Your task to perform on an android device: toggle improve location accuracy Image 0: 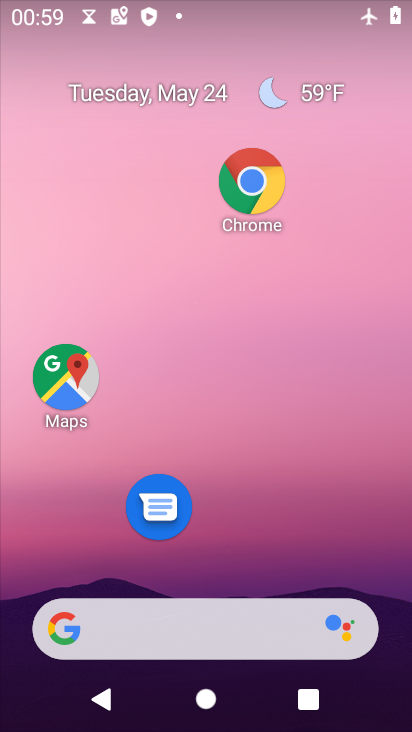
Step 0: drag from (282, 543) to (398, 113)
Your task to perform on an android device: toggle improve location accuracy Image 1: 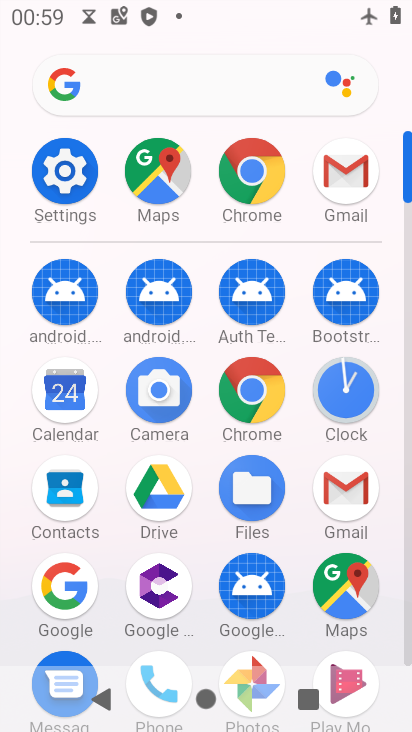
Step 1: click (68, 156)
Your task to perform on an android device: toggle improve location accuracy Image 2: 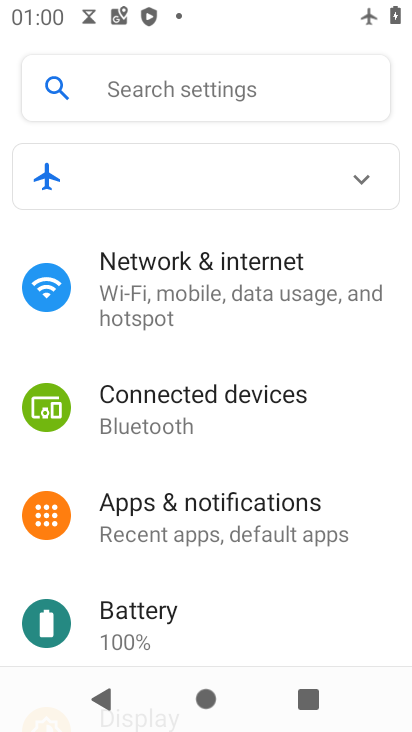
Step 2: drag from (166, 586) to (325, 143)
Your task to perform on an android device: toggle improve location accuracy Image 3: 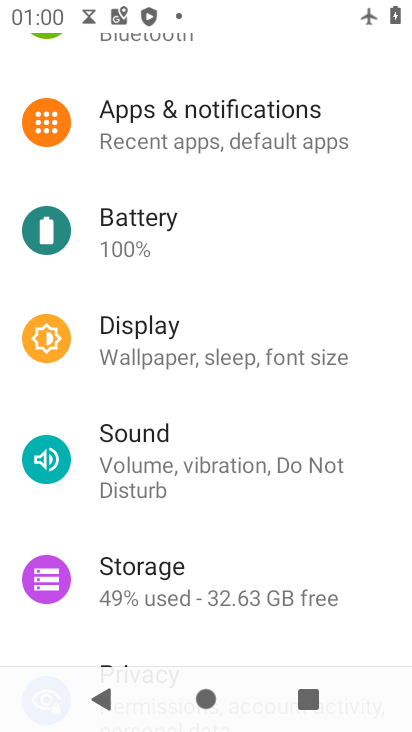
Step 3: drag from (226, 491) to (358, 98)
Your task to perform on an android device: toggle improve location accuracy Image 4: 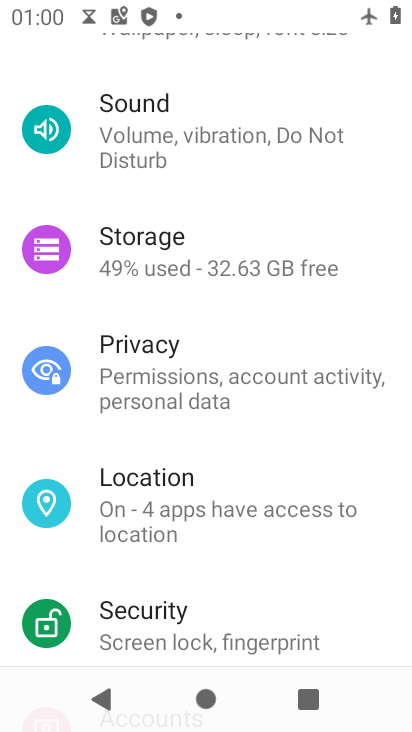
Step 4: click (177, 518)
Your task to perform on an android device: toggle improve location accuracy Image 5: 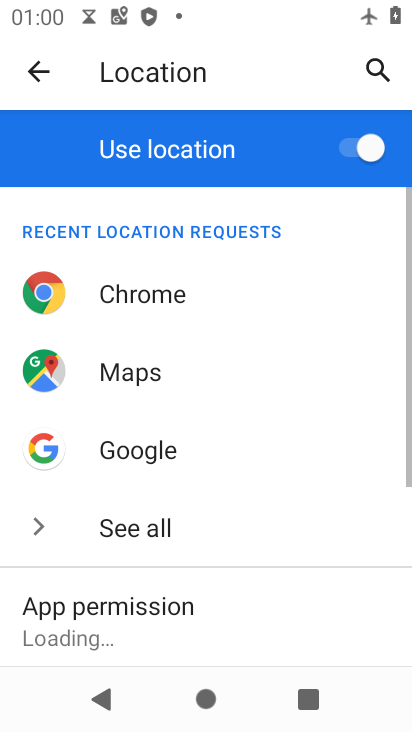
Step 5: drag from (295, 530) to (349, 151)
Your task to perform on an android device: toggle improve location accuracy Image 6: 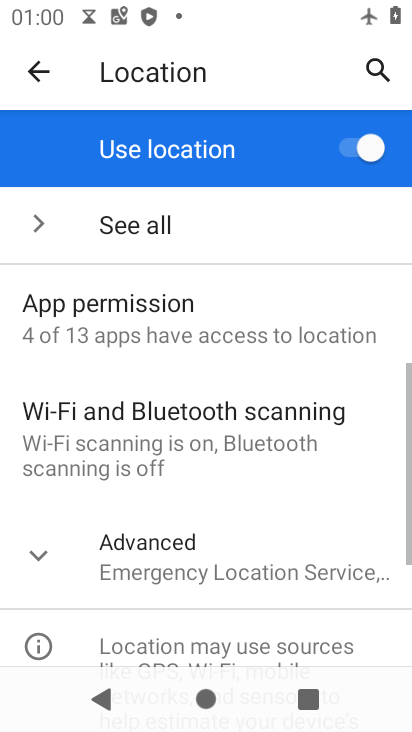
Step 6: drag from (249, 498) to (299, 258)
Your task to perform on an android device: toggle improve location accuracy Image 7: 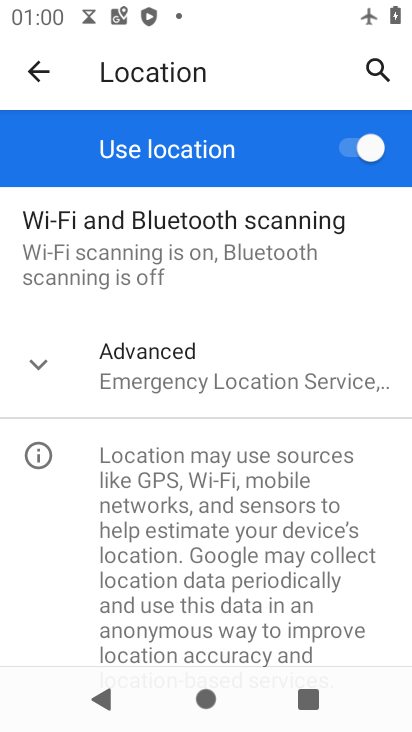
Step 7: click (221, 383)
Your task to perform on an android device: toggle improve location accuracy Image 8: 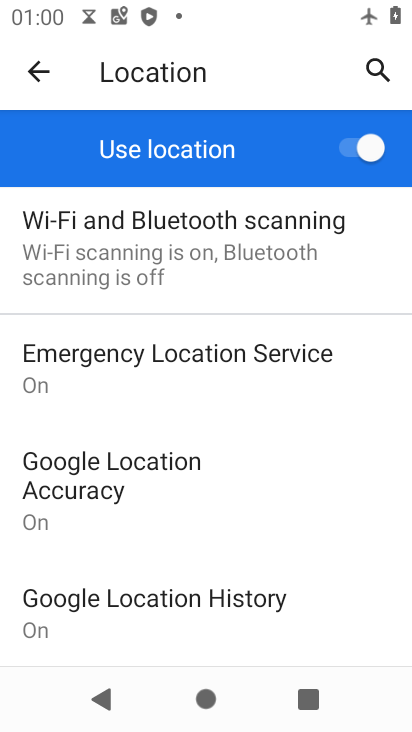
Step 8: click (125, 508)
Your task to perform on an android device: toggle improve location accuracy Image 9: 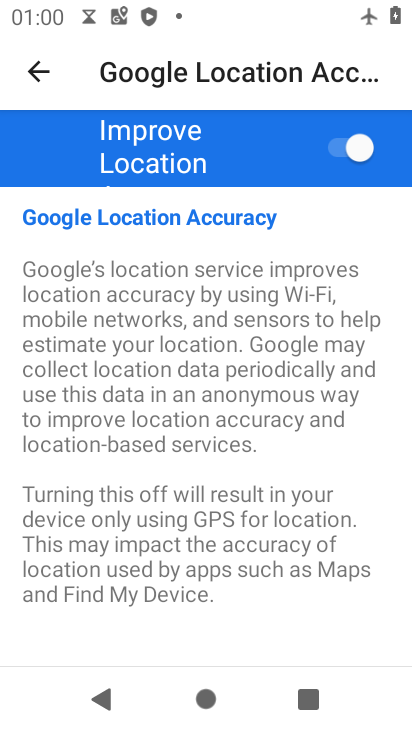
Step 9: click (356, 162)
Your task to perform on an android device: toggle improve location accuracy Image 10: 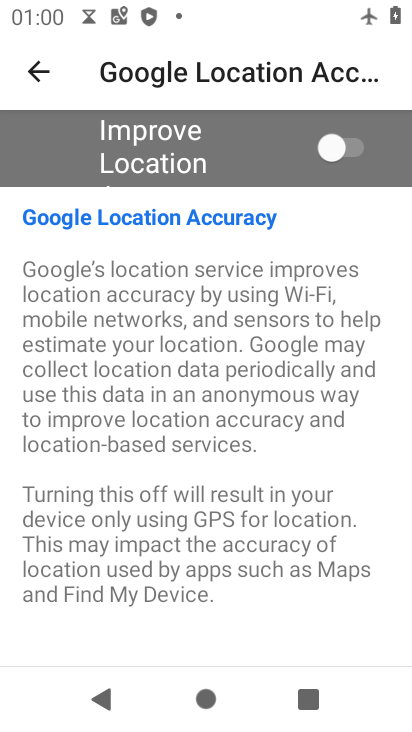
Step 10: task complete